Your task to perform on an android device: check data usage Image 0: 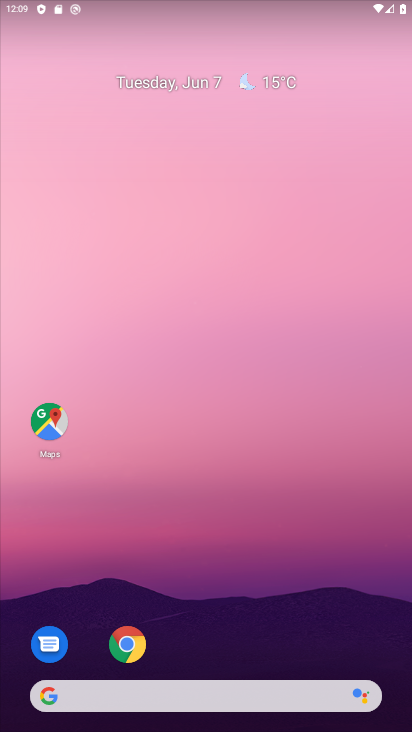
Step 0: drag from (212, 600) to (219, 1)
Your task to perform on an android device: check data usage Image 1: 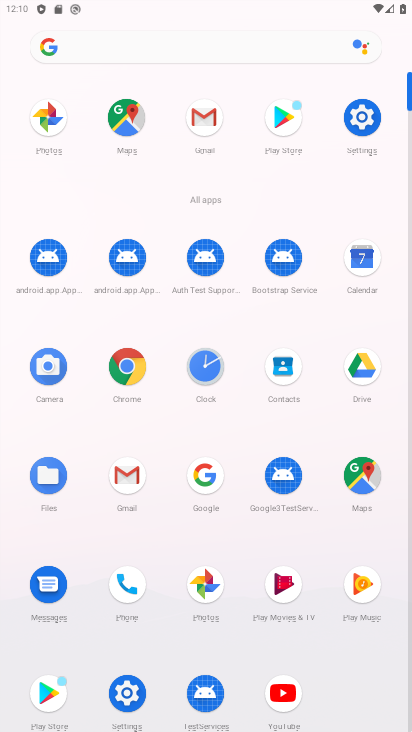
Step 1: click (364, 124)
Your task to perform on an android device: check data usage Image 2: 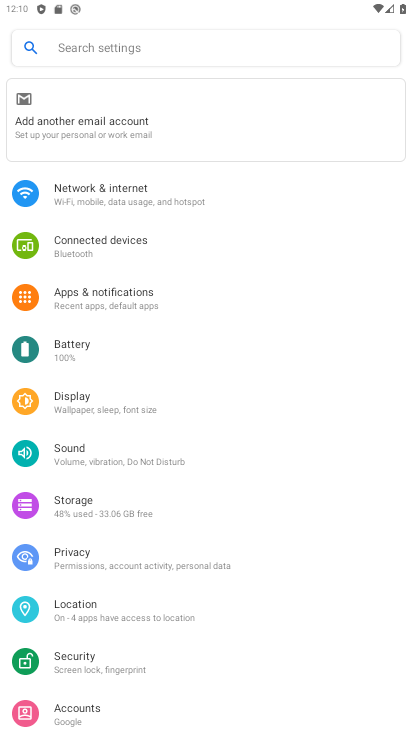
Step 2: click (107, 187)
Your task to perform on an android device: check data usage Image 3: 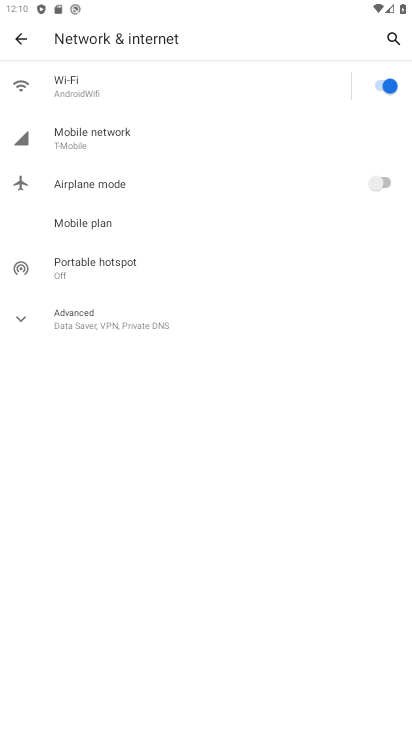
Step 3: click (78, 138)
Your task to perform on an android device: check data usage Image 4: 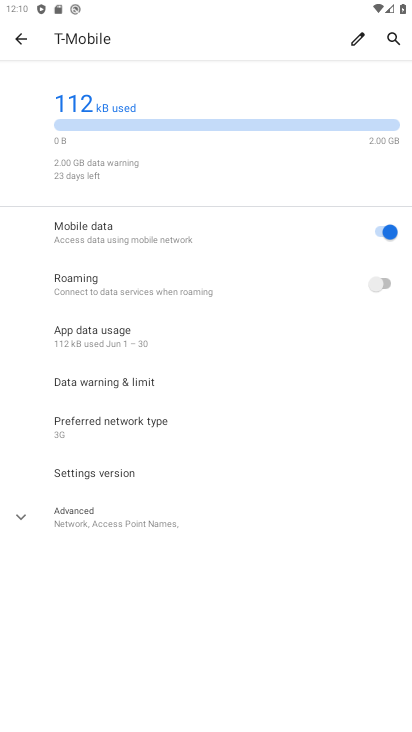
Step 4: click (96, 341)
Your task to perform on an android device: check data usage Image 5: 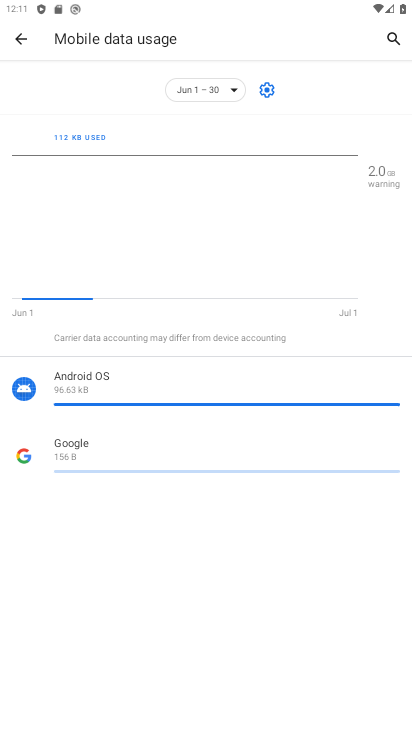
Step 5: task complete